Your task to perform on an android device: change text size in settings app Image 0: 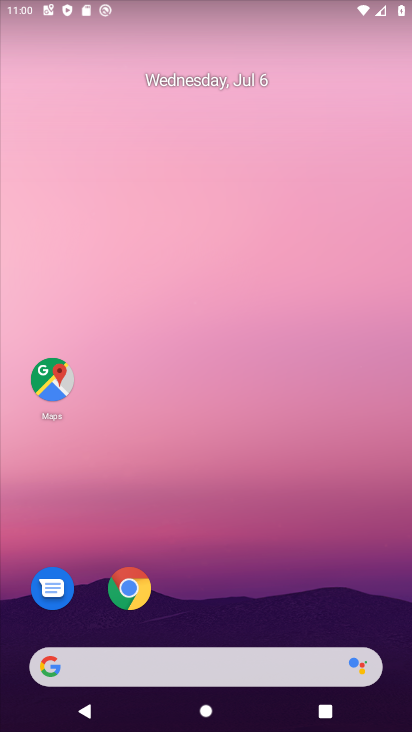
Step 0: drag from (240, 615) to (215, 278)
Your task to perform on an android device: change text size in settings app Image 1: 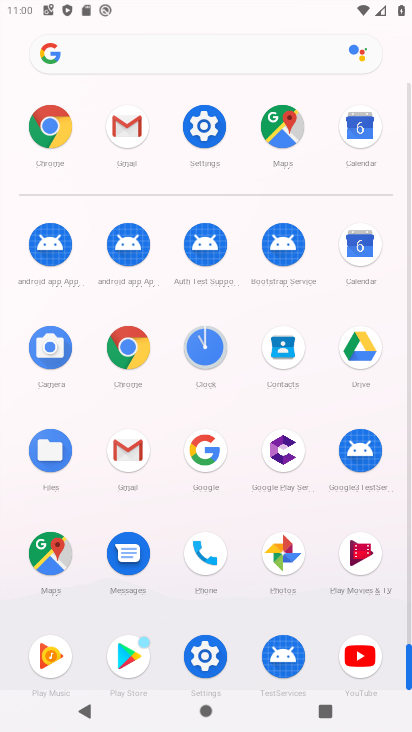
Step 1: click (203, 127)
Your task to perform on an android device: change text size in settings app Image 2: 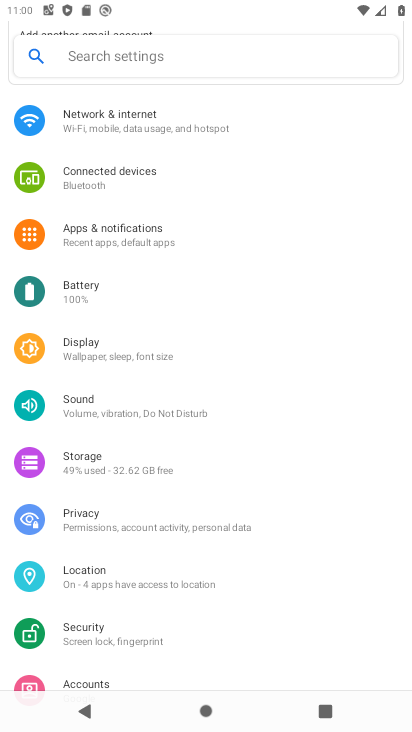
Step 2: drag from (132, 624) to (203, 363)
Your task to perform on an android device: change text size in settings app Image 3: 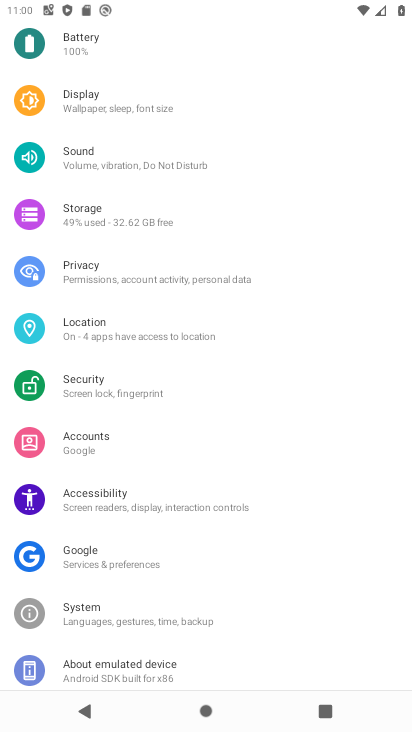
Step 3: click (125, 494)
Your task to perform on an android device: change text size in settings app Image 4: 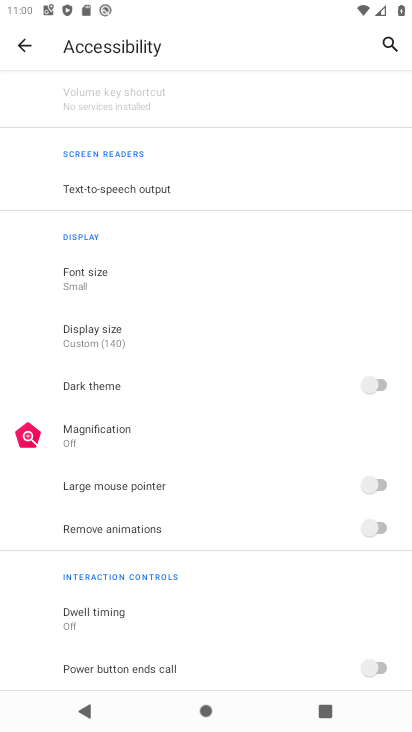
Step 4: click (98, 282)
Your task to perform on an android device: change text size in settings app Image 5: 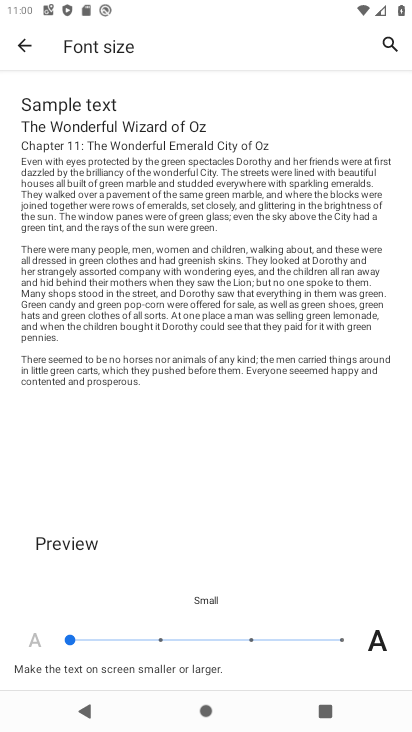
Step 5: click (158, 642)
Your task to perform on an android device: change text size in settings app Image 6: 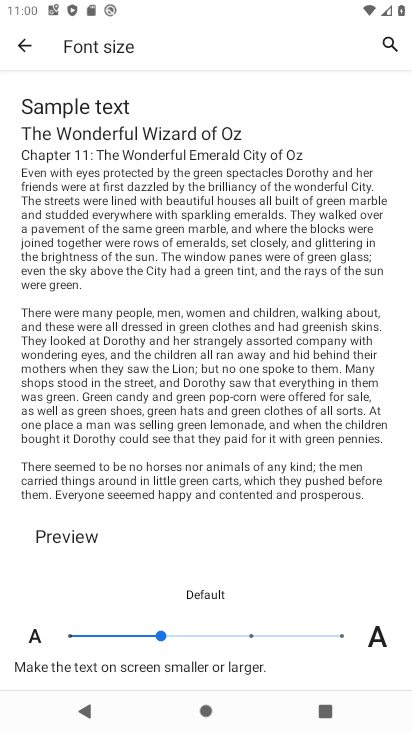
Step 6: task complete